Your task to perform on an android device: search for starred emails in the gmail app Image 0: 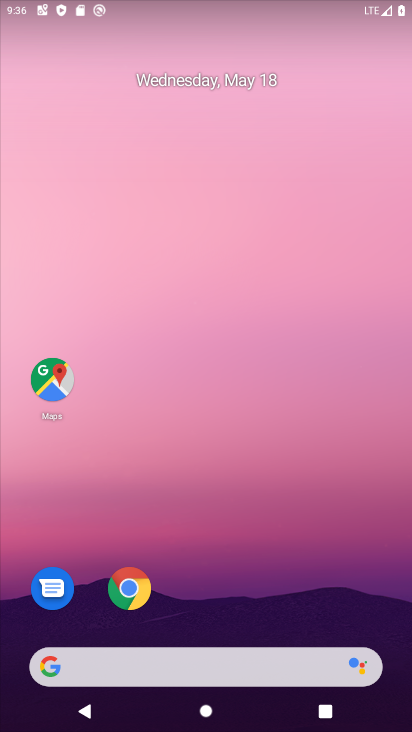
Step 0: drag from (333, 597) to (318, 5)
Your task to perform on an android device: search for starred emails in the gmail app Image 1: 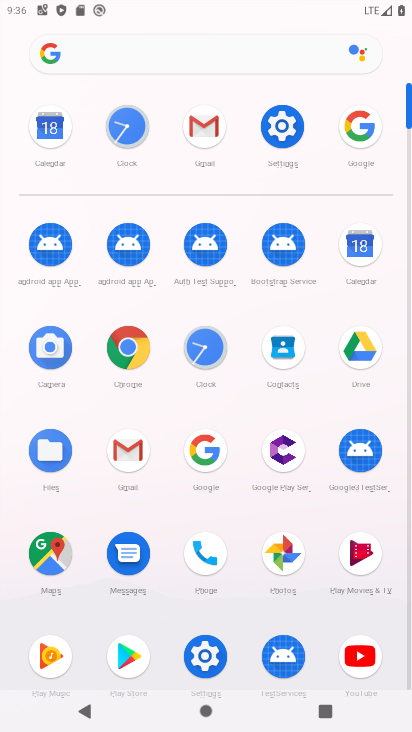
Step 1: click (202, 133)
Your task to perform on an android device: search for starred emails in the gmail app Image 2: 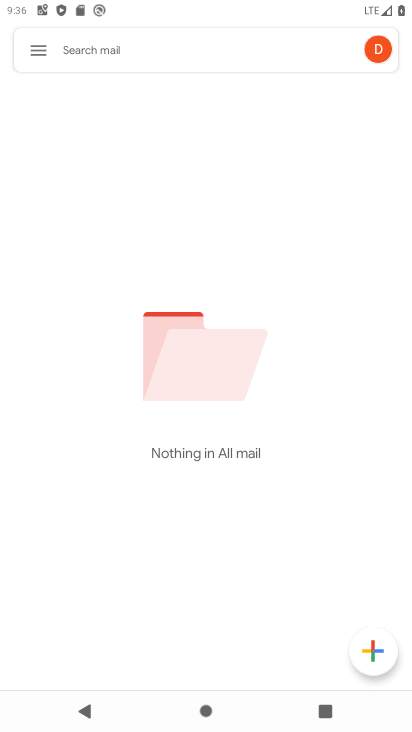
Step 2: click (40, 53)
Your task to perform on an android device: search for starred emails in the gmail app Image 3: 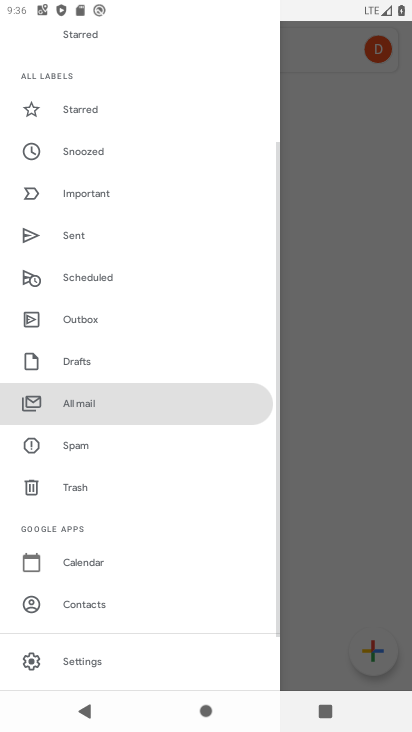
Step 3: click (78, 112)
Your task to perform on an android device: search for starred emails in the gmail app Image 4: 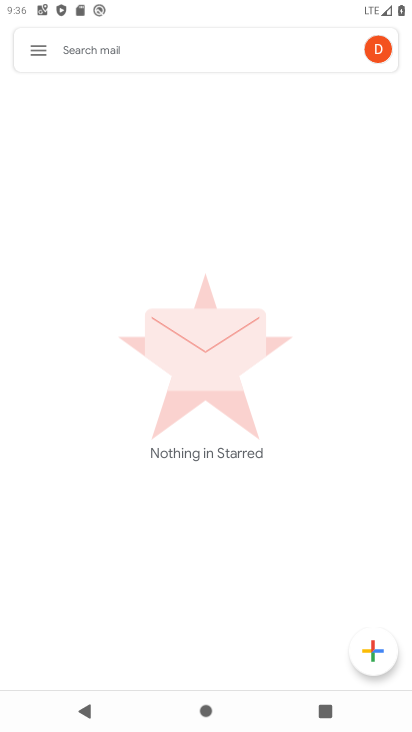
Step 4: task complete